Your task to perform on an android device: Search for vegetarian restaurants on Maps Image 0: 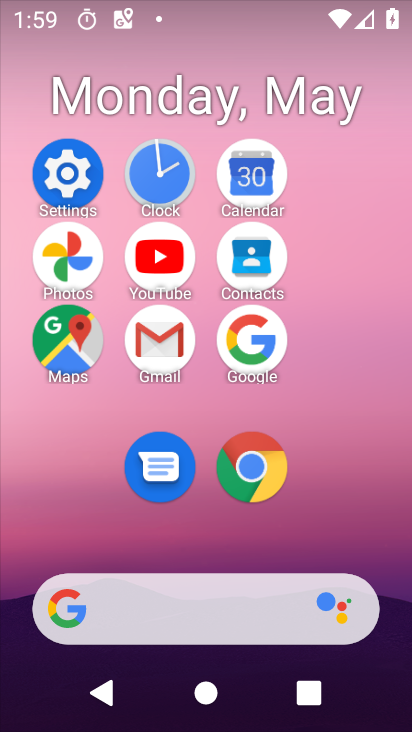
Step 0: click (61, 342)
Your task to perform on an android device: Search for vegetarian restaurants on Maps Image 1: 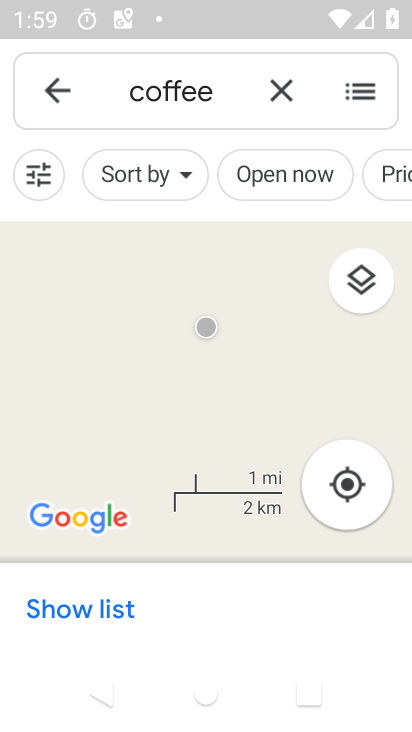
Step 1: click (279, 81)
Your task to perform on an android device: Search for vegetarian restaurants on Maps Image 2: 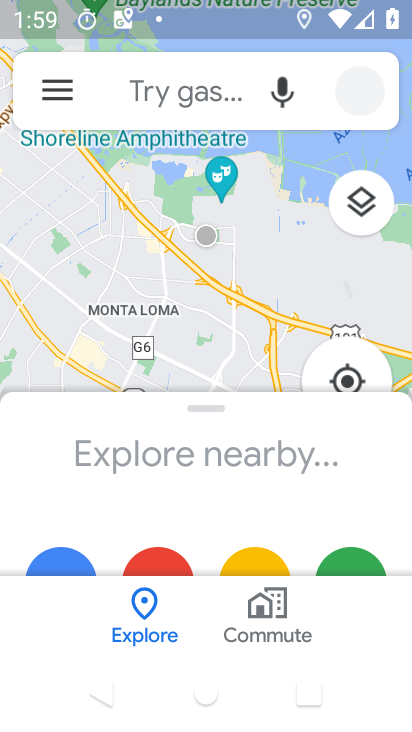
Step 2: click (175, 101)
Your task to perform on an android device: Search for vegetarian restaurants on Maps Image 3: 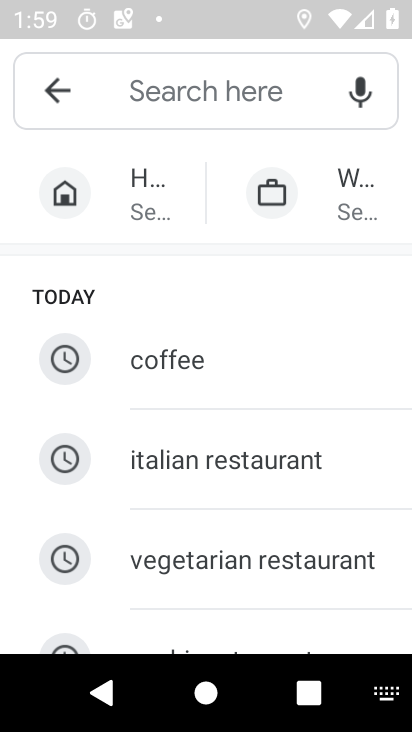
Step 3: click (197, 558)
Your task to perform on an android device: Search for vegetarian restaurants on Maps Image 4: 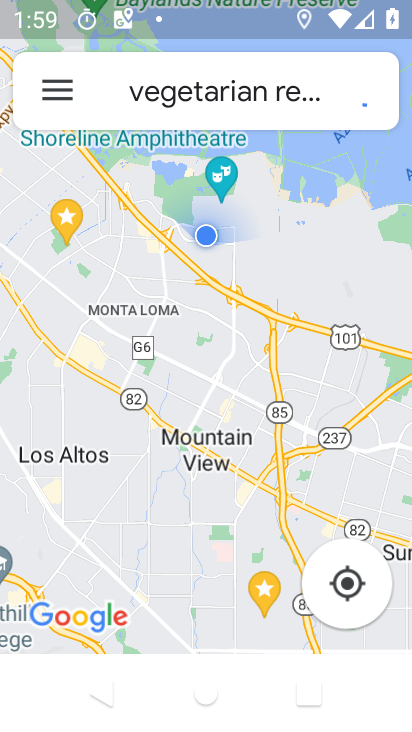
Step 4: task complete